Your task to perform on an android device: choose inbox layout in the gmail app Image 0: 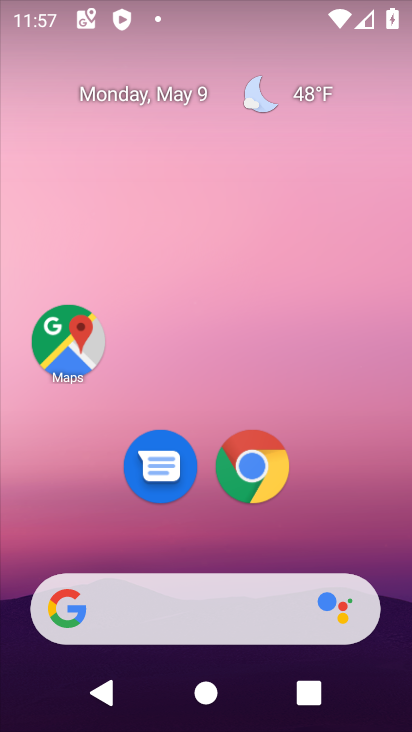
Step 0: drag from (391, 585) to (332, 58)
Your task to perform on an android device: choose inbox layout in the gmail app Image 1: 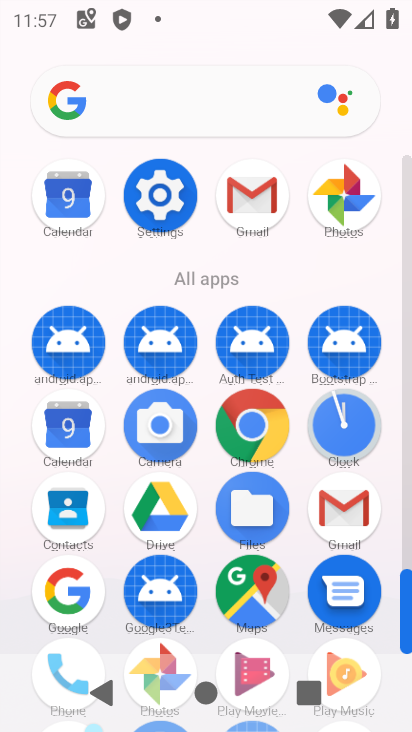
Step 1: click (408, 557)
Your task to perform on an android device: choose inbox layout in the gmail app Image 2: 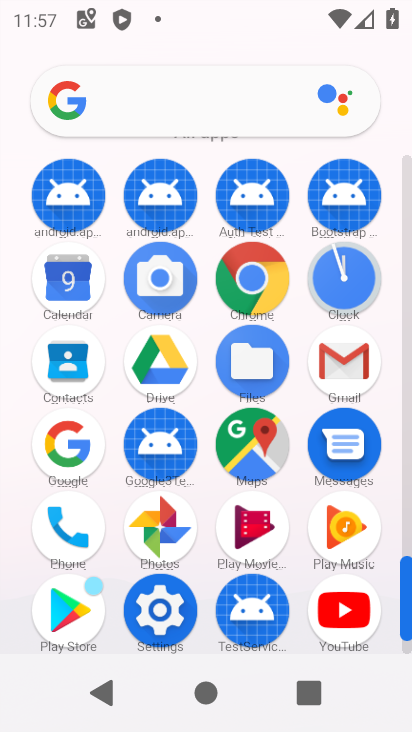
Step 2: click (339, 358)
Your task to perform on an android device: choose inbox layout in the gmail app Image 3: 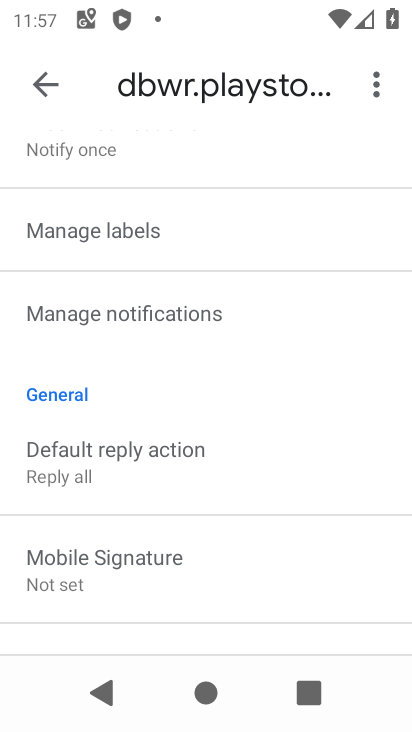
Step 3: drag from (298, 216) to (247, 517)
Your task to perform on an android device: choose inbox layout in the gmail app Image 4: 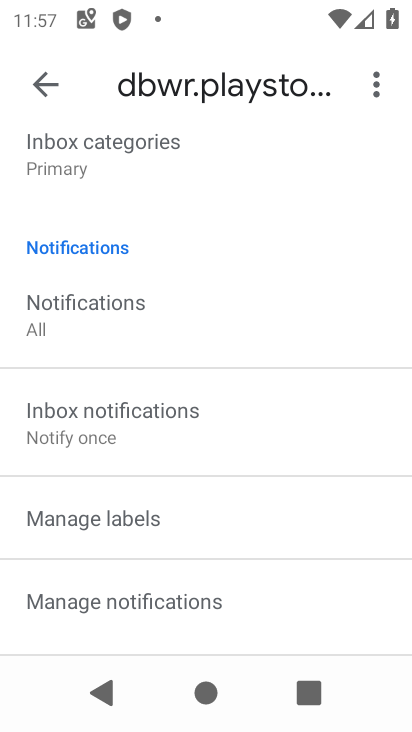
Step 4: drag from (191, 215) to (211, 457)
Your task to perform on an android device: choose inbox layout in the gmail app Image 5: 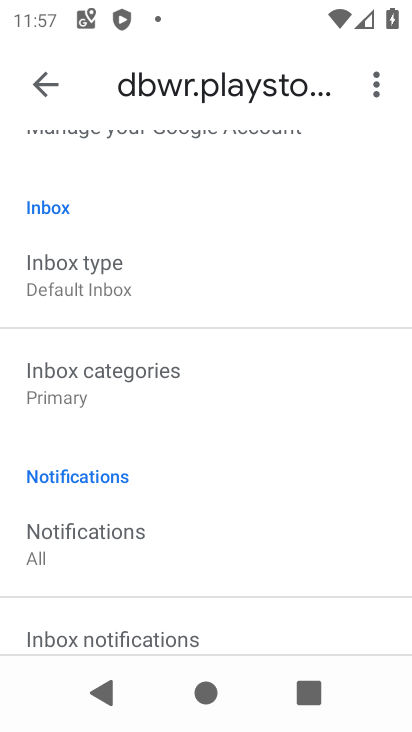
Step 5: click (69, 286)
Your task to perform on an android device: choose inbox layout in the gmail app Image 6: 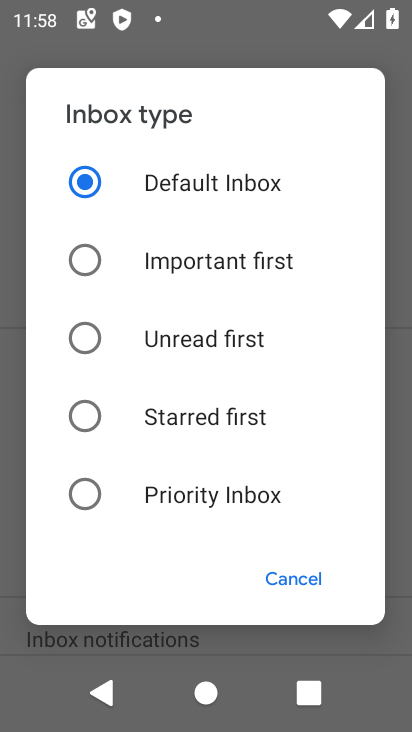
Step 6: click (285, 573)
Your task to perform on an android device: choose inbox layout in the gmail app Image 7: 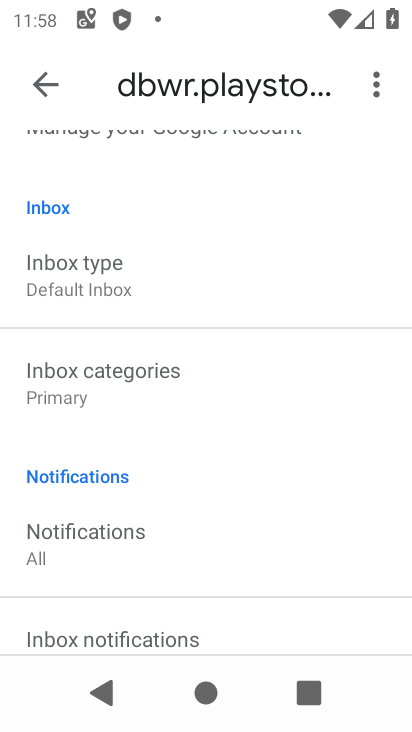
Step 7: task complete